Your task to perform on an android device: Open privacy settings Image 0: 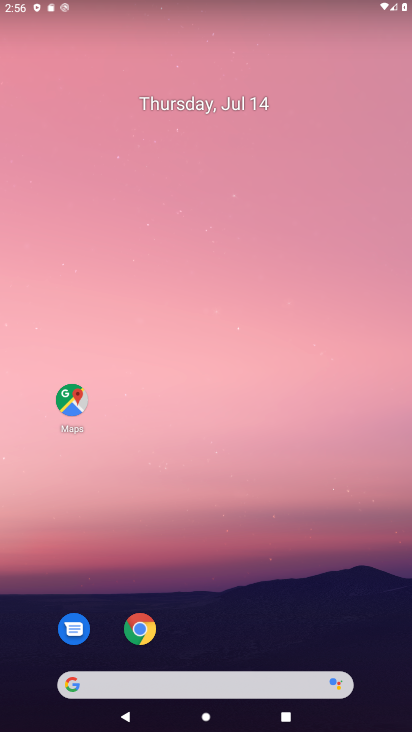
Step 0: press home button
Your task to perform on an android device: Open privacy settings Image 1: 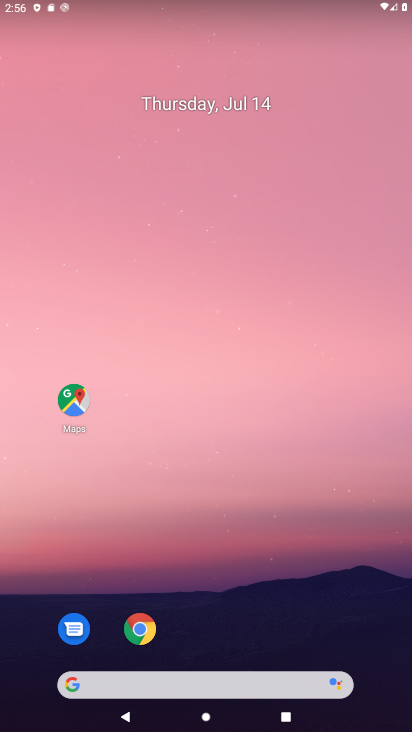
Step 1: drag from (226, 207) to (227, 111)
Your task to perform on an android device: Open privacy settings Image 2: 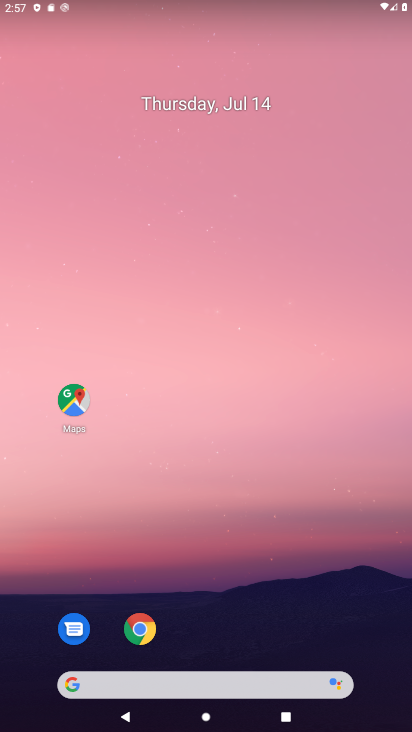
Step 2: drag from (215, 630) to (209, 170)
Your task to perform on an android device: Open privacy settings Image 3: 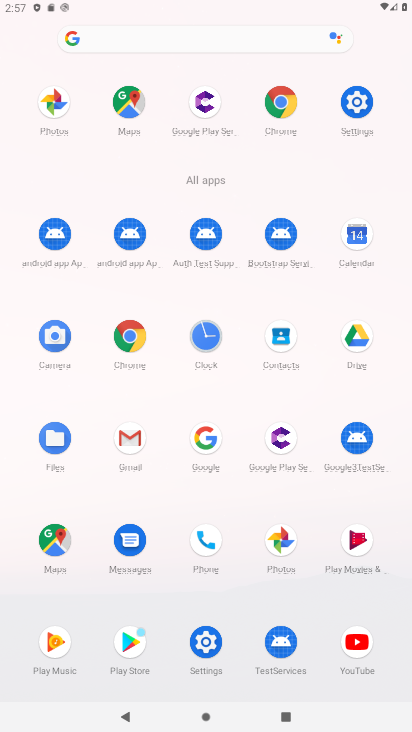
Step 3: click (353, 95)
Your task to perform on an android device: Open privacy settings Image 4: 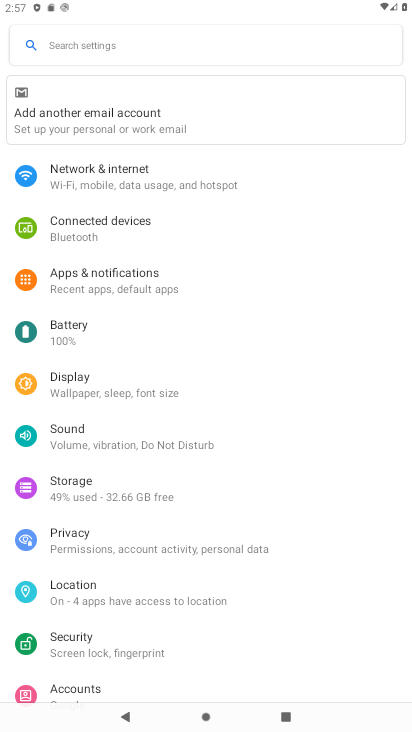
Step 4: click (99, 532)
Your task to perform on an android device: Open privacy settings Image 5: 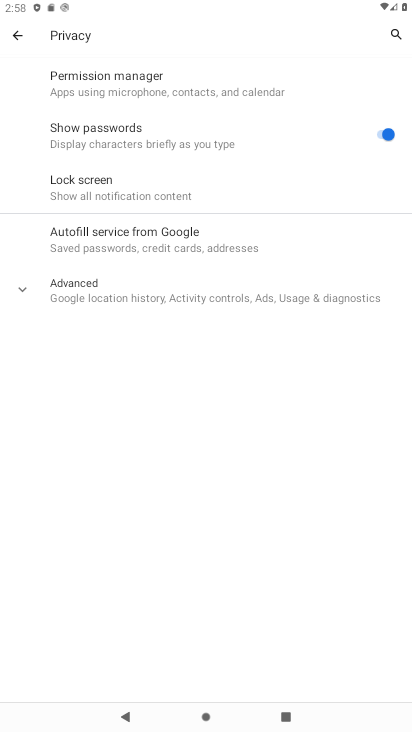
Step 5: click (19, 287)
Your task to perform on an android device: Open privacy settings Image 6: 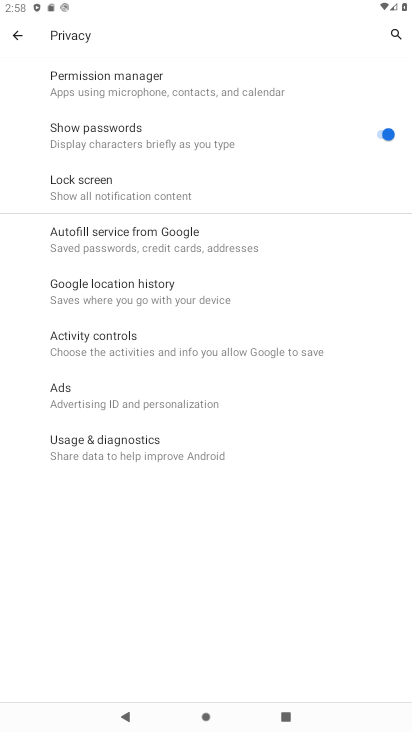
Step 6: task complete